Your task to perform on an android device: What's the weather going to be this weekend? Image 0: 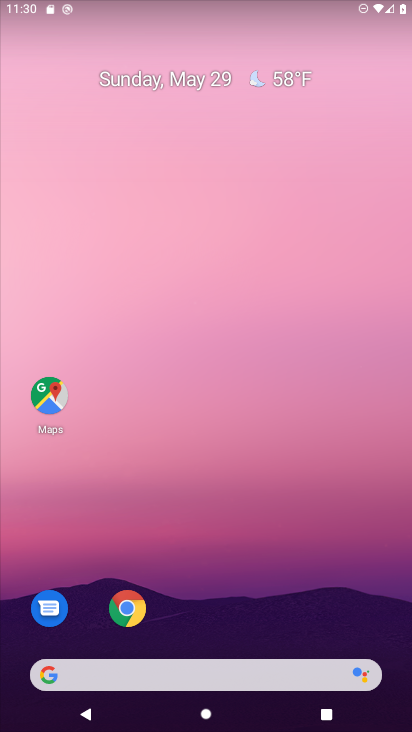
Step 0: drag from (129, 609) to (181, 229)
Your task to perform on an android device: What's the weather going to be this weekend? Image 1: 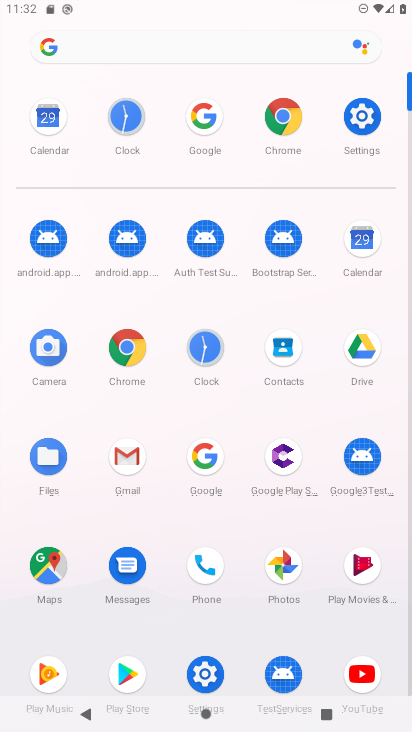
Step 1: click (204, 116)
Your task to perform on an android device: What's the weather going to be this weekend? Image 2: 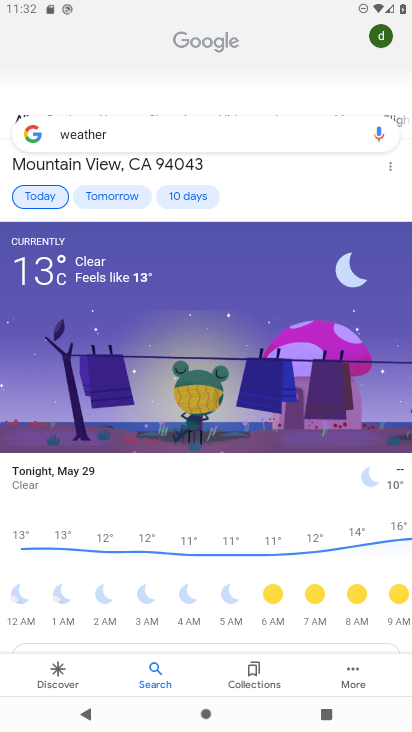
Step 2: click (118, 130)
Your task to perform on an android device: What's the weather going to be this weekend? Image 3: 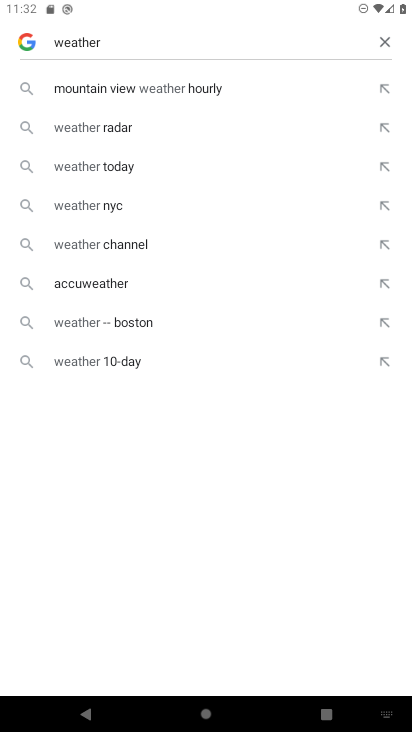
Step 3: click (378, 32)
Your task to perform on an android device: What's the weather going to be this weekend? Image 4: 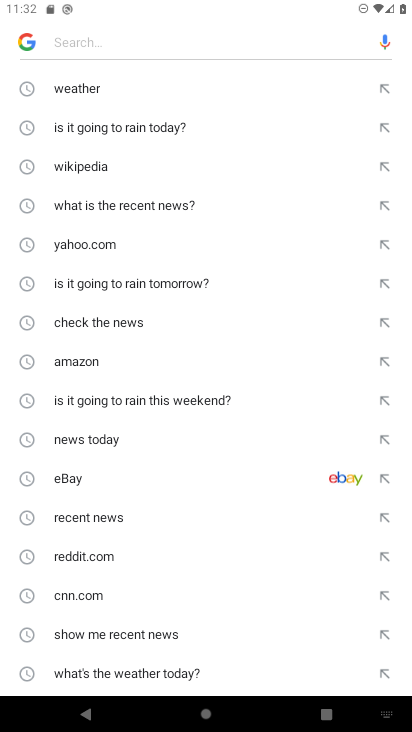
Step 4: drag from (101, 671) to (101, 428)
Your task to perform on an android device: What's the weather going to be this weekend? Image 5: 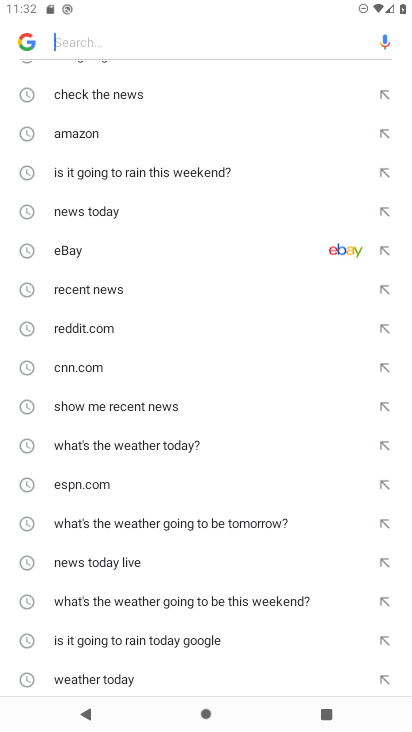
Step 5: click (137, 602)
Your task to perform on an android device: What's the weather going to be this weekend? Image 6: 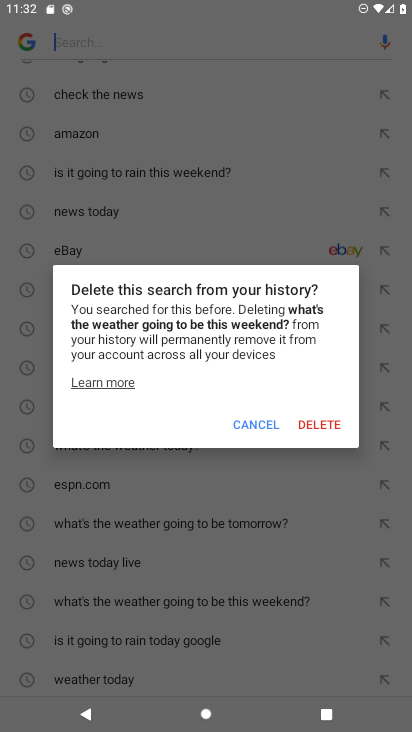
Step 6: click (233, 431)
Your task to perform on an android device: What's the weather going to be this weekend? Image 7: 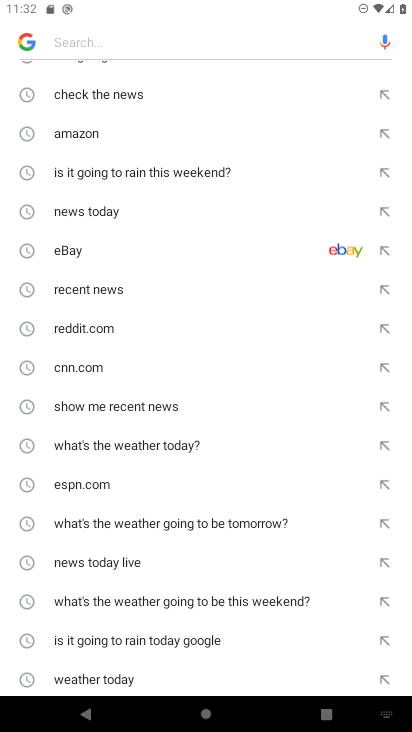
Step 7: click (181, 601)
Your task to perform on an android device: What's the weather going to be this weekend? Image 8: 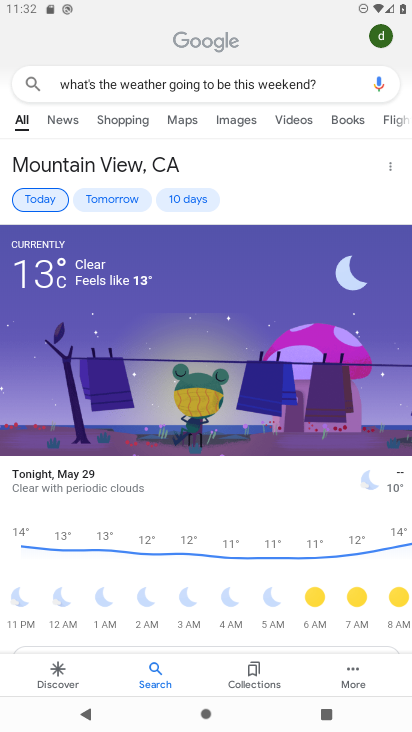
Step 8: task complete